Your task to perform on an android device: Open the calendar app, open the side menu, and click the "Day" option Image 0: 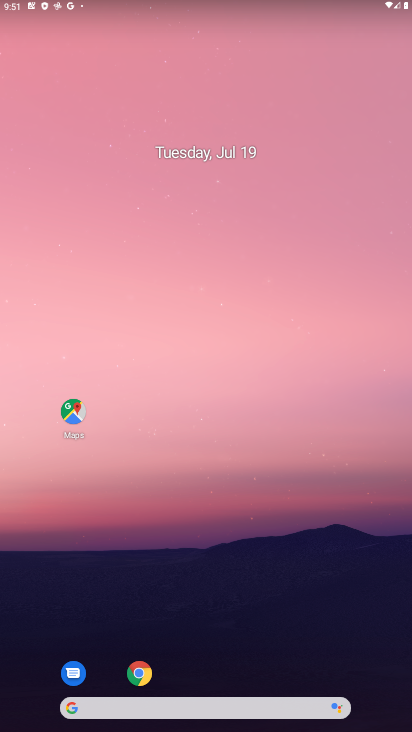
Step 0: drag from (259, 686) to (182, 256)
Your task to perform on an android device: Open the calendar app, open the side menu, and click the "Day" option Image 1: 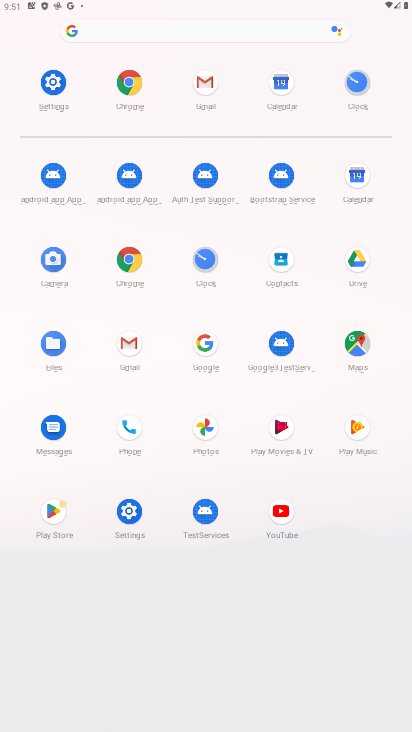
Step 1: click (346, 170)
Your task to perform on an android device: Open the calendar app, open the side menu, and click the "Day" option Image 2: 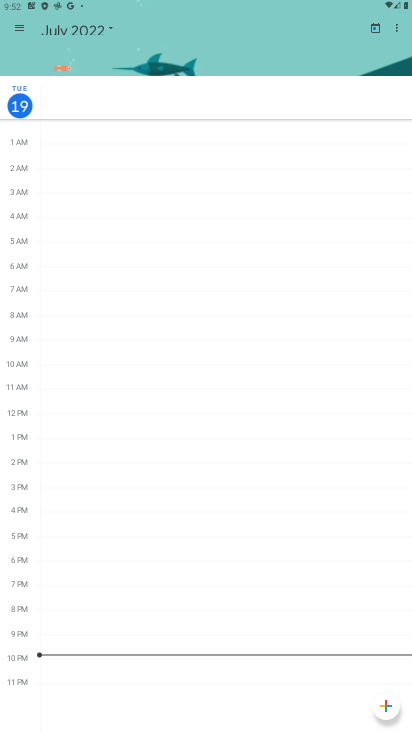
Step 2: click (18, 36)
Your task to perform on an android device: Open the calendar app, open the side menu, and click the "Day" option Image 3: 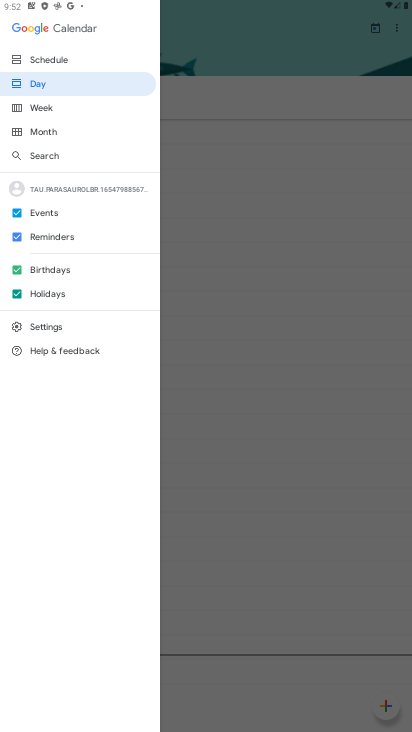
Step 3: click (48, 90)
Your task to perform on an android device: Open the calendar app, open the side menu, and click the "Day" option Image 4: 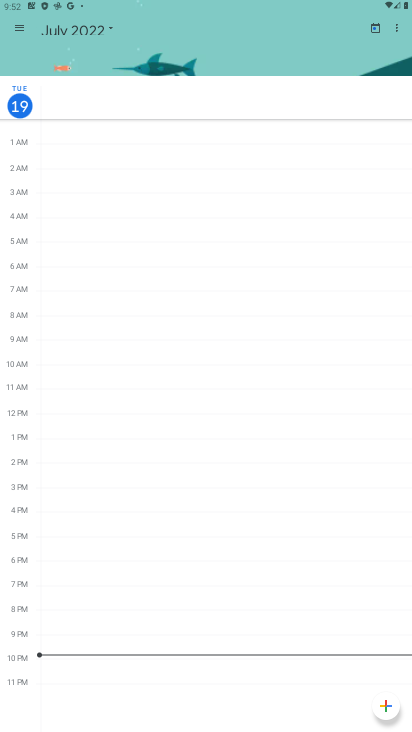
Step 4: task complete